Your task to perform on an android device: Open Yahoo.com Image 0: 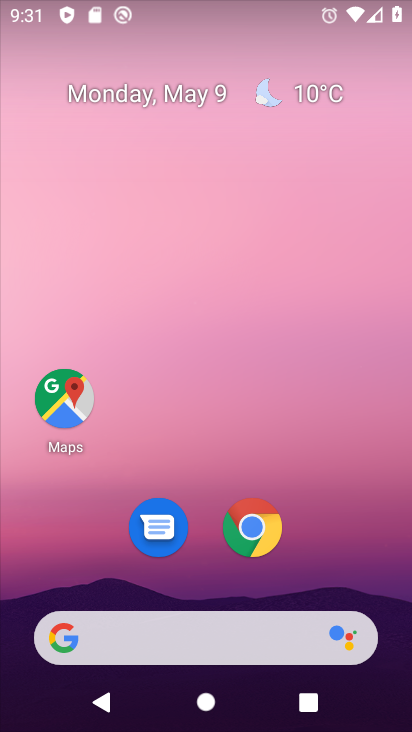
Step 0: click (253, 522)
Your task to perform on an android device: Open Yahoo.com Image 1: 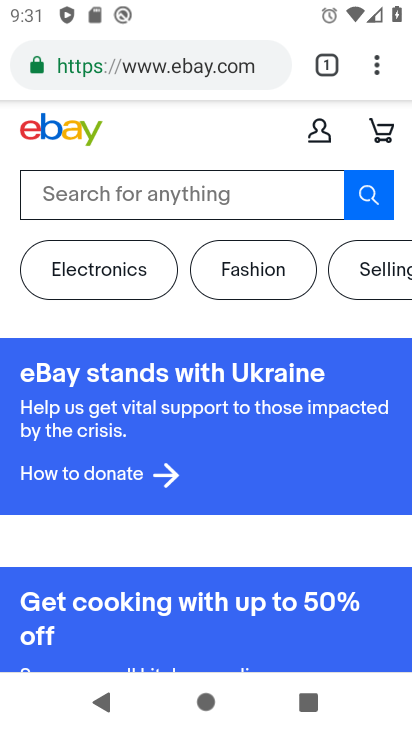
Step 1: click (167, 56)
Your task to perform on an android device: Open Yahoo.com Image 2: 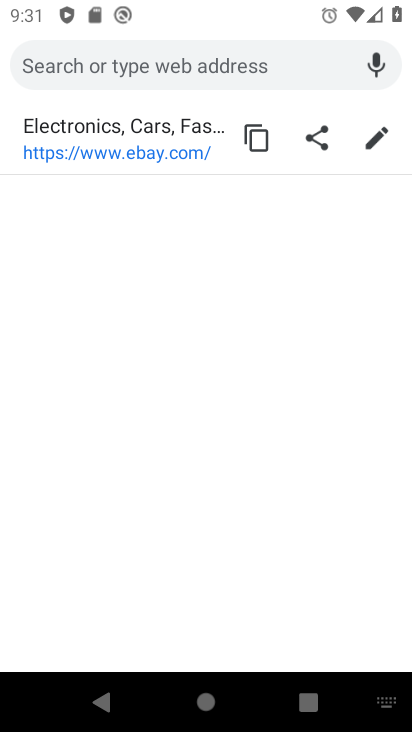
Step 2: type "yahoo.com"
Your task to perform on an android device: Open Yahoo.com Image 3: 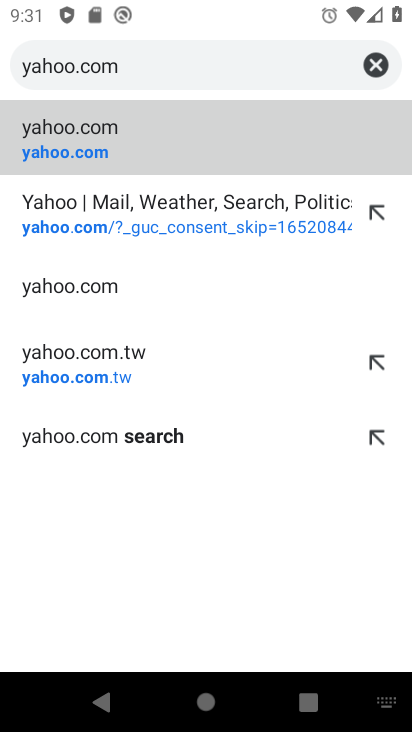
Step 3: click (60, 130)
Your task to perform on an android device: Open Yahoo.com Image 4: 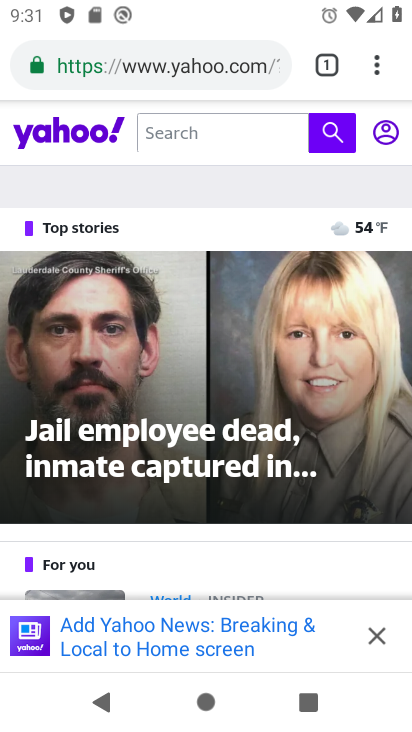
Step 4: task complete